Your task to perform on an android device: visit the assistant section in the google photos Image 0: 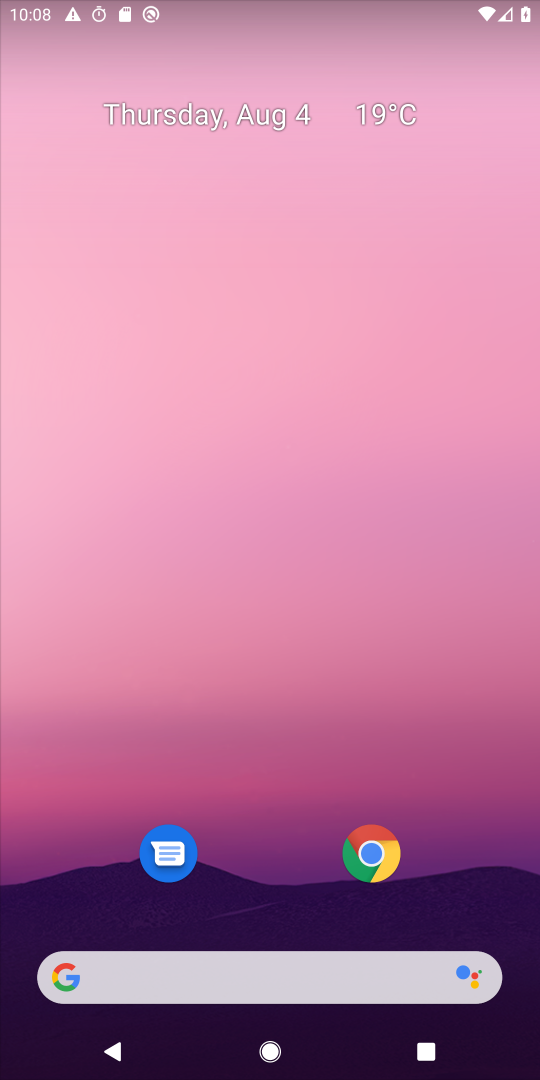
Step 0: drag from (290, 899) to (424, 4)
Your task to perform on an android device: visit the assistant section in the google photos Image 1: 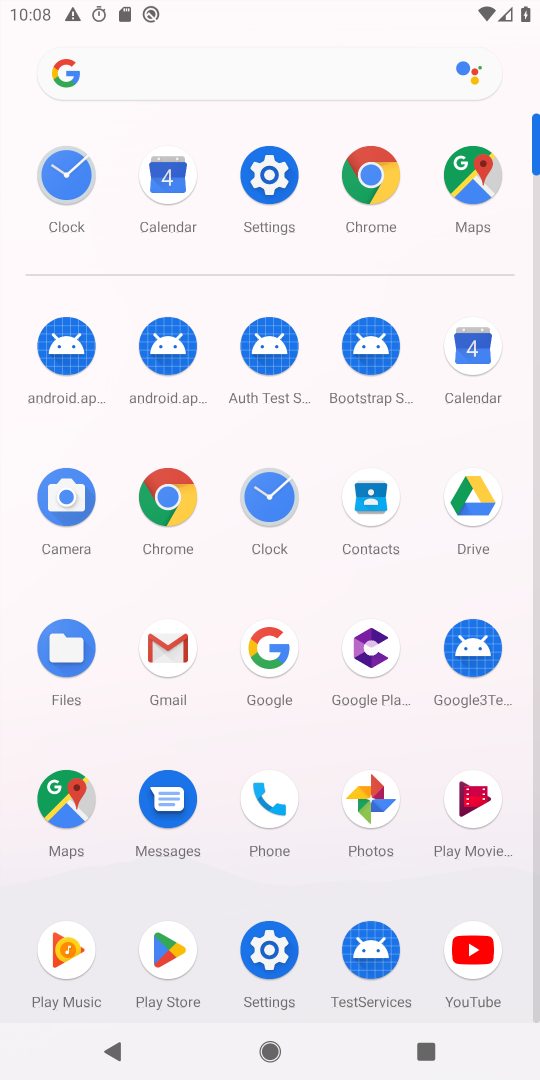
Step 1: click (398, 777)
Your task to perform on an android device: visit the assistant section in the google photos Image 2: 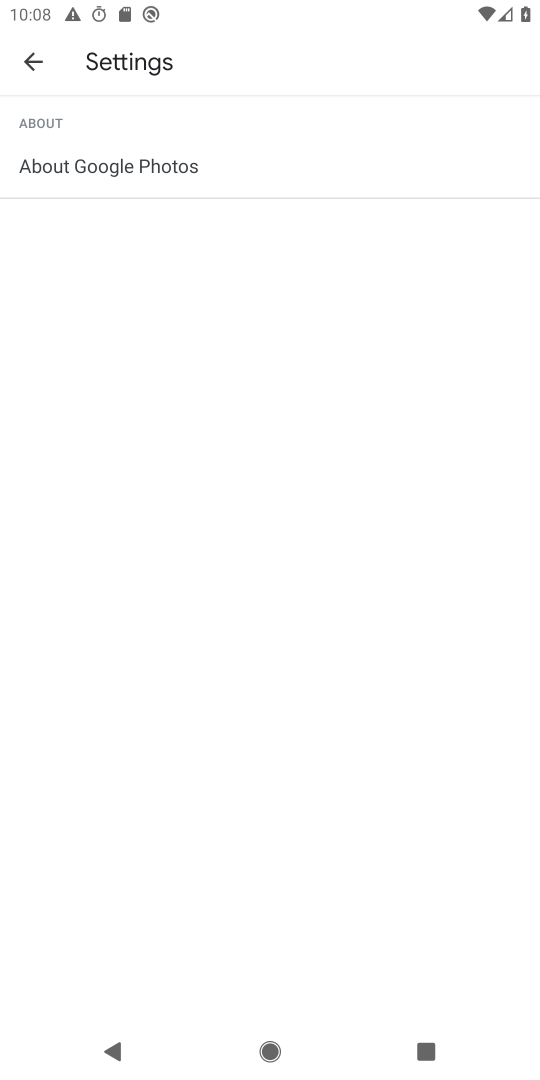
Step 2: click (42, 59)
Your task to perform on an android device: visit the assistant section in the google photos Image 3: 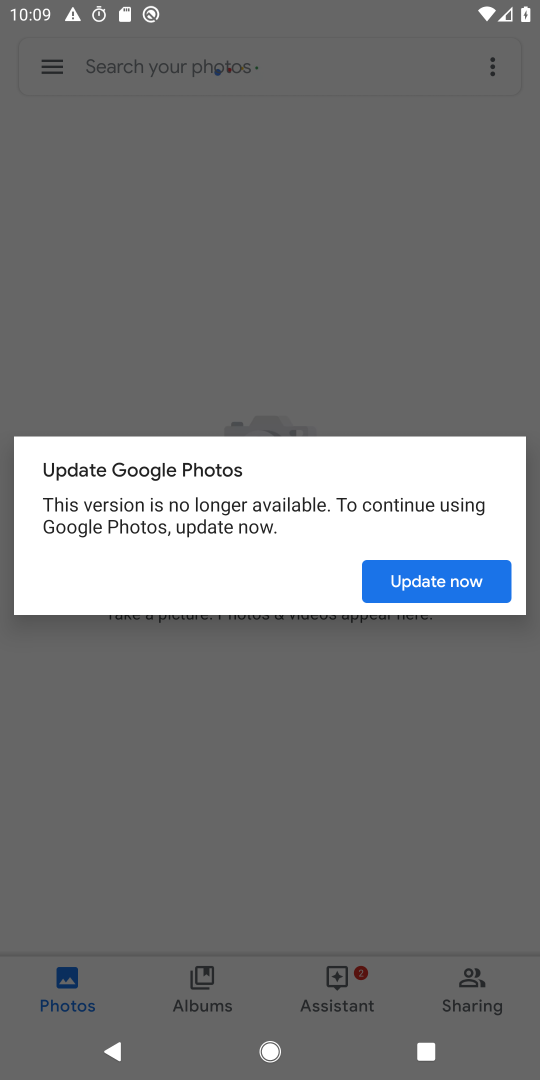
Step 3: click (471, 573)
Your task to perform on an android device: visit the assistant section in the google photos Image 4: 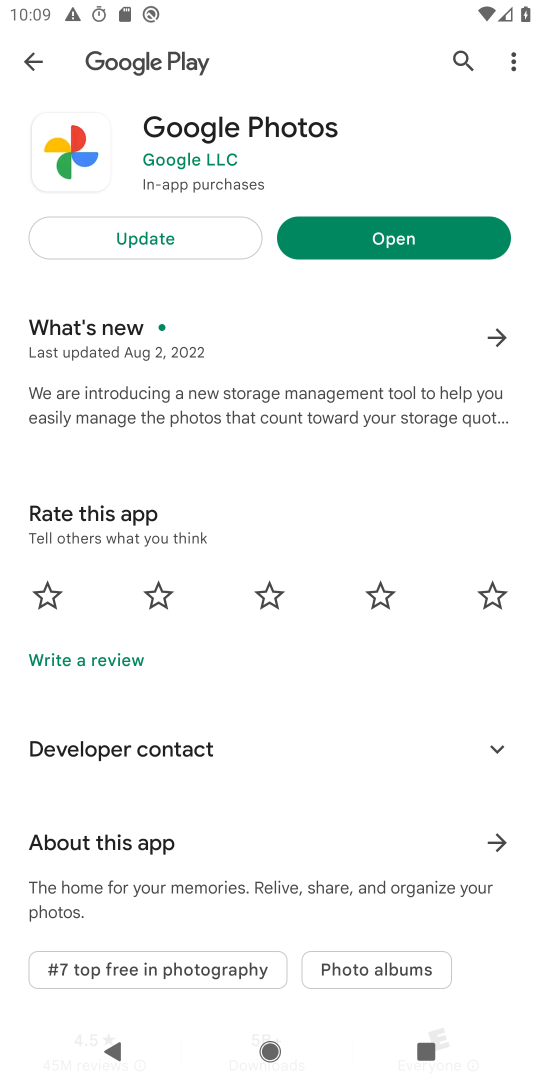
Step 4: click (403, 242)
Your task to perform on an android device: visit the assistant section in the google photos Image 5: 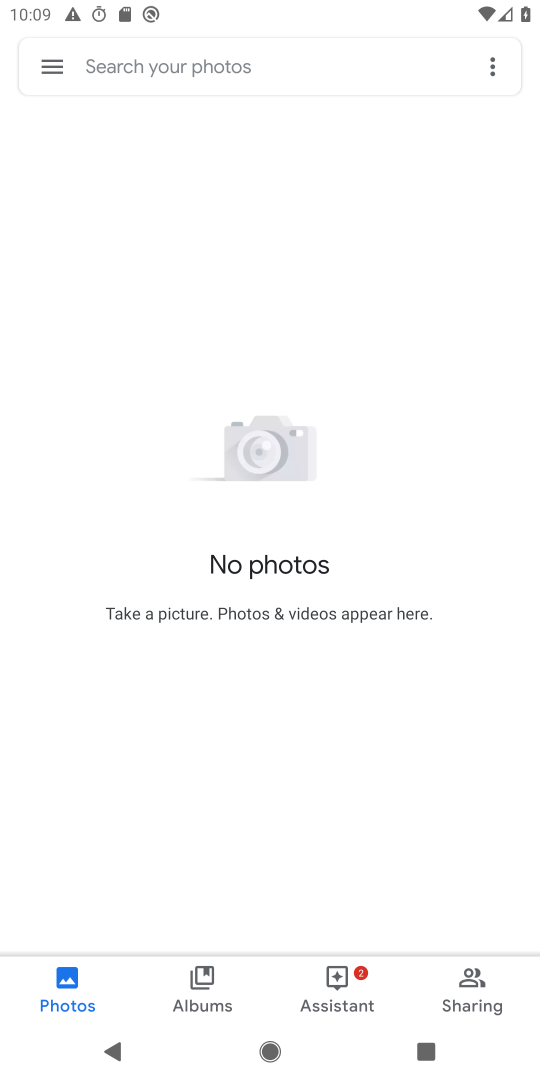
Step 5: click (363, 982)
Your task to perform on an android device: visit the assistant section in the google photos Image 6: 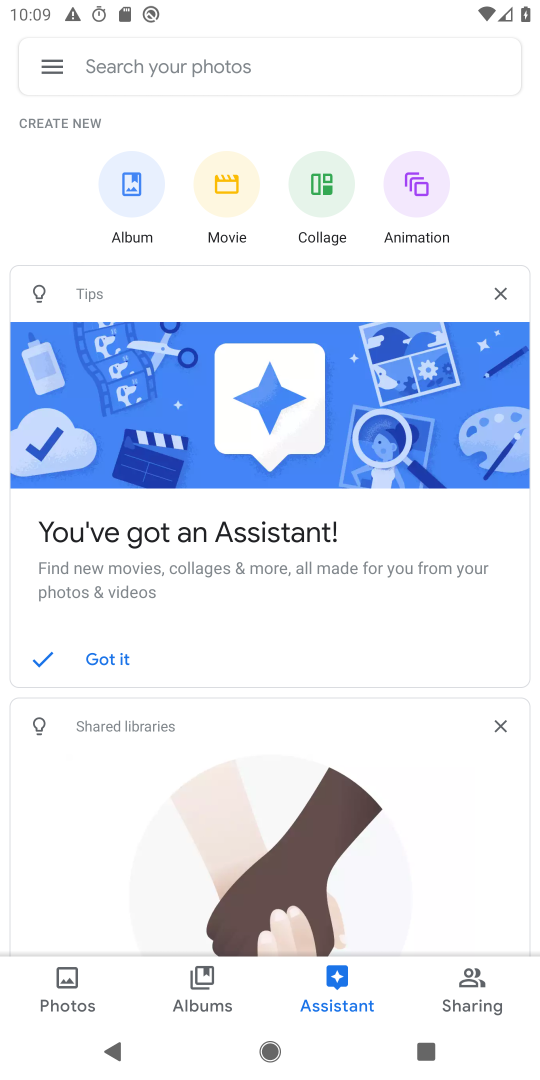
Step 6: task complete